Your task to perform on an android device: toggle show notifications on the lock screen Image 0: 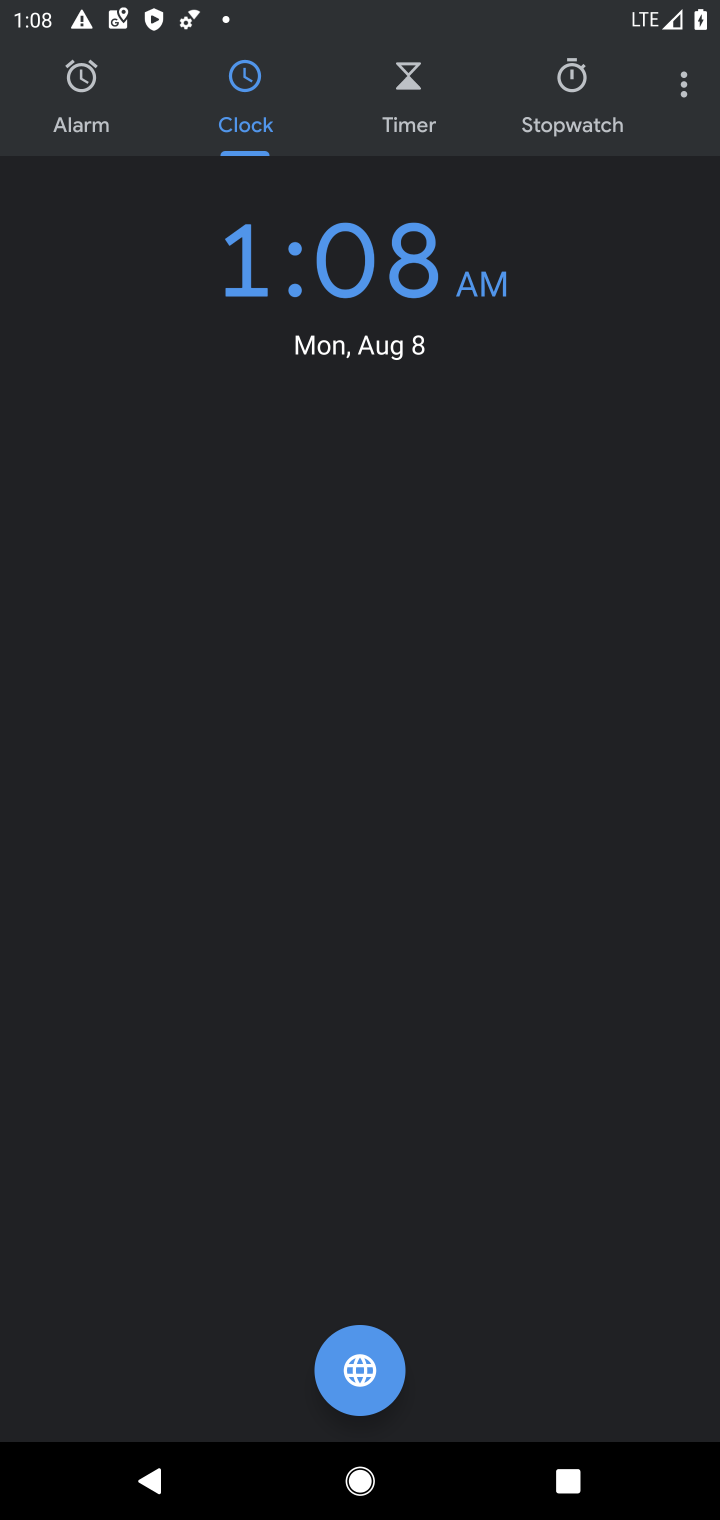
Step 0: press back button
Your task to perform on an android device: toggle show notifications on the lock screen Image 1: 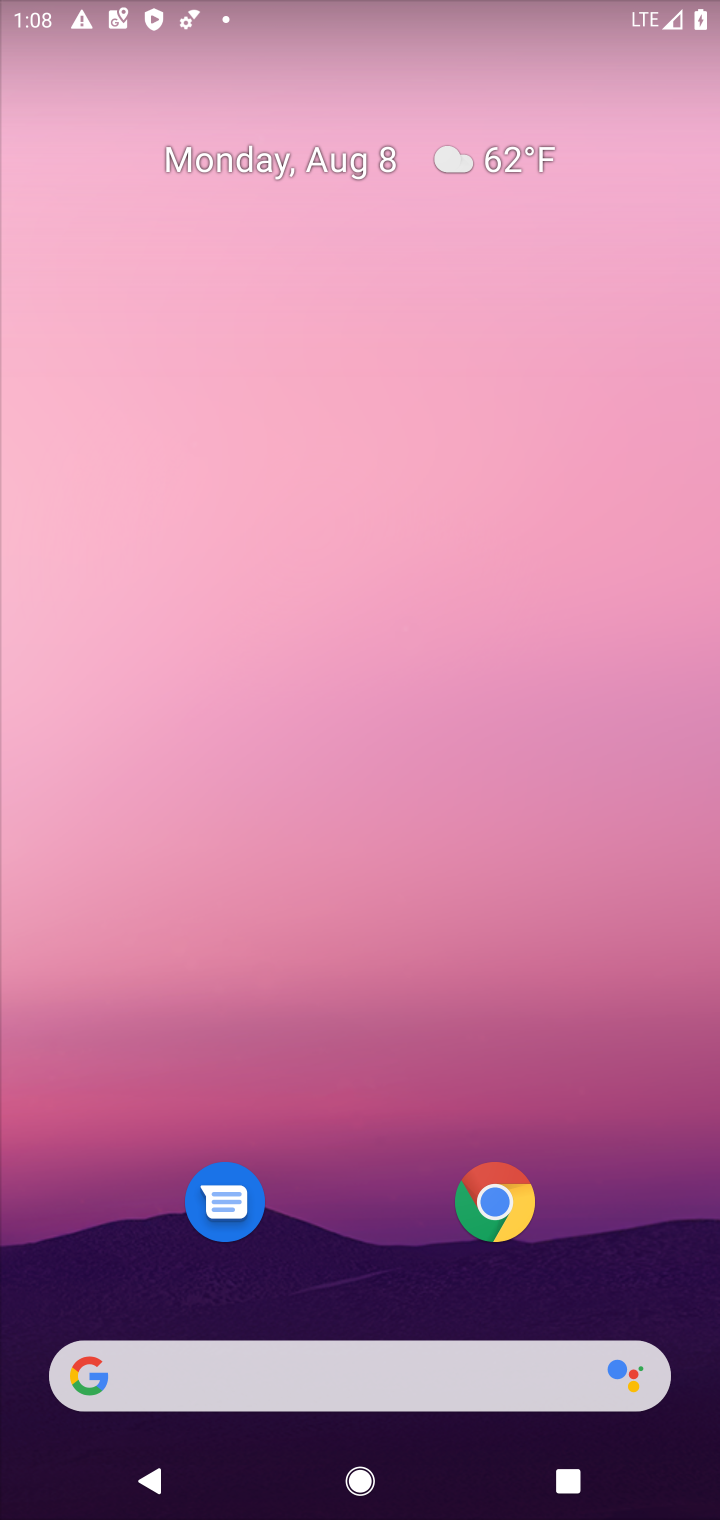
Step 1: drag from (363, 1183) to (406, 284)
Your task to perform on an android device: toggle show notifications on the lock screen Image 2: 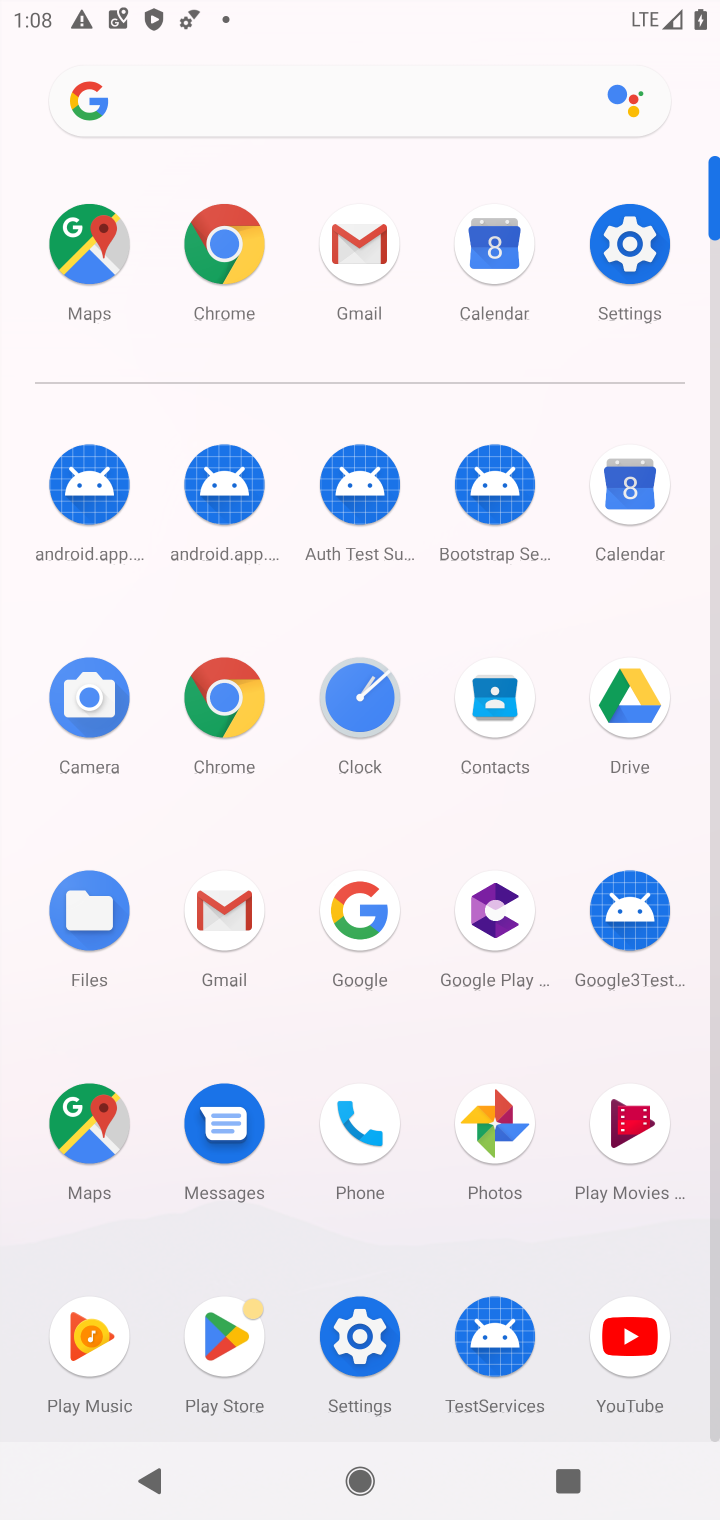
Step 2: click (621, 247)
Your task to perform on an android device: toggle show notifications on the lock screen Image 3: 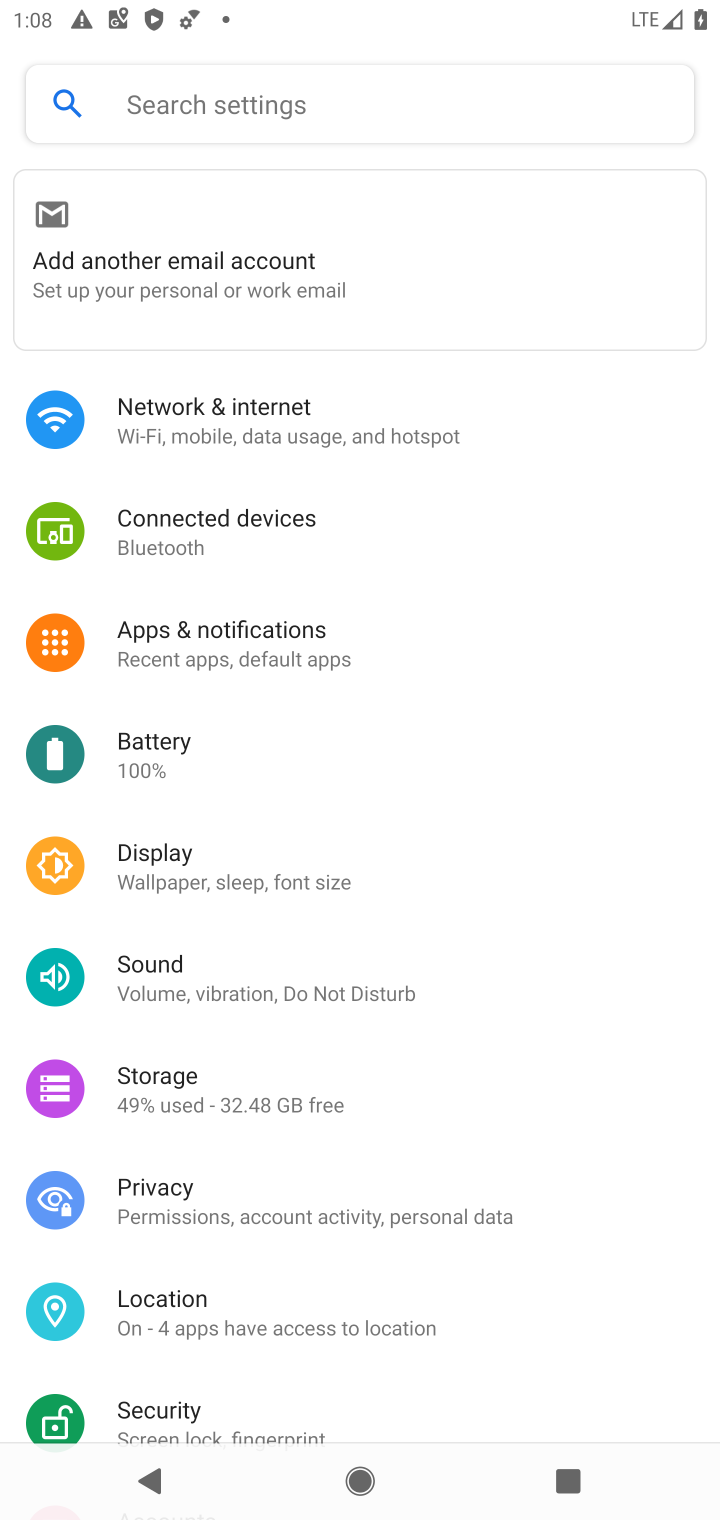
Step 3: click (284, 624)
Your task to perform on an android device: toggle show notifications on the lock screen Image 4: 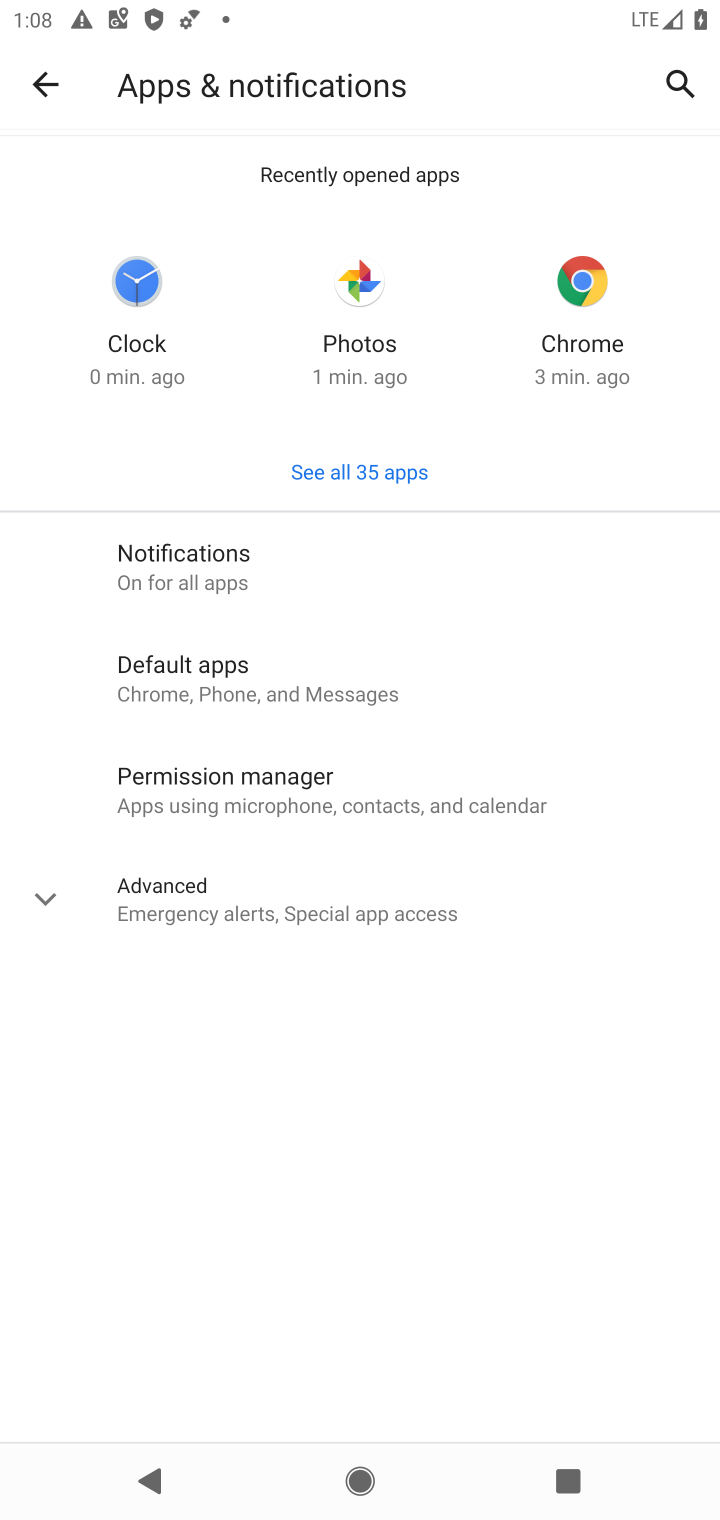
Step 4: click (203, 591)
Your task to perform on an android device: toggle show notifications on the lock screen Image 5: 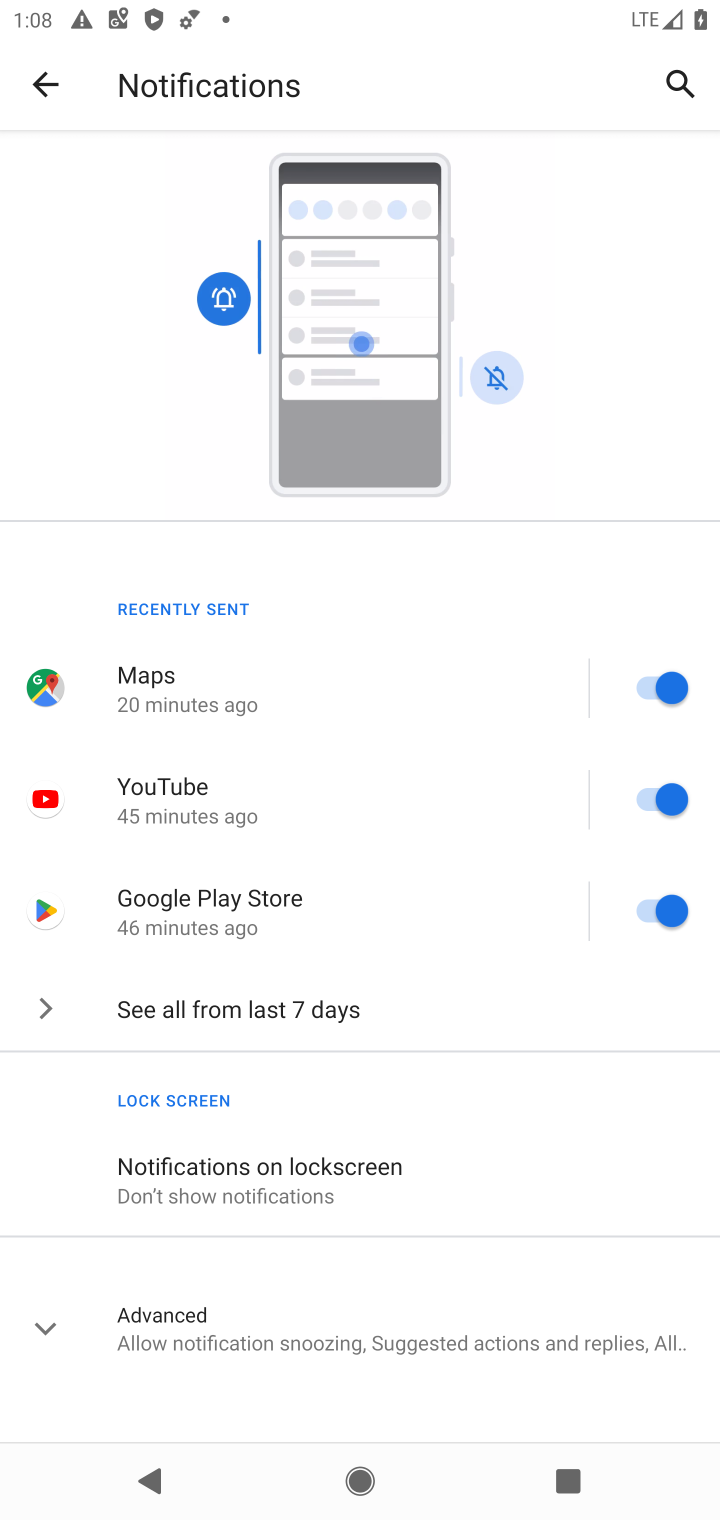
Step 5: click (344, 1182)
Your task to perform on an android device: toggle show notifications on the lock screen Image 6: 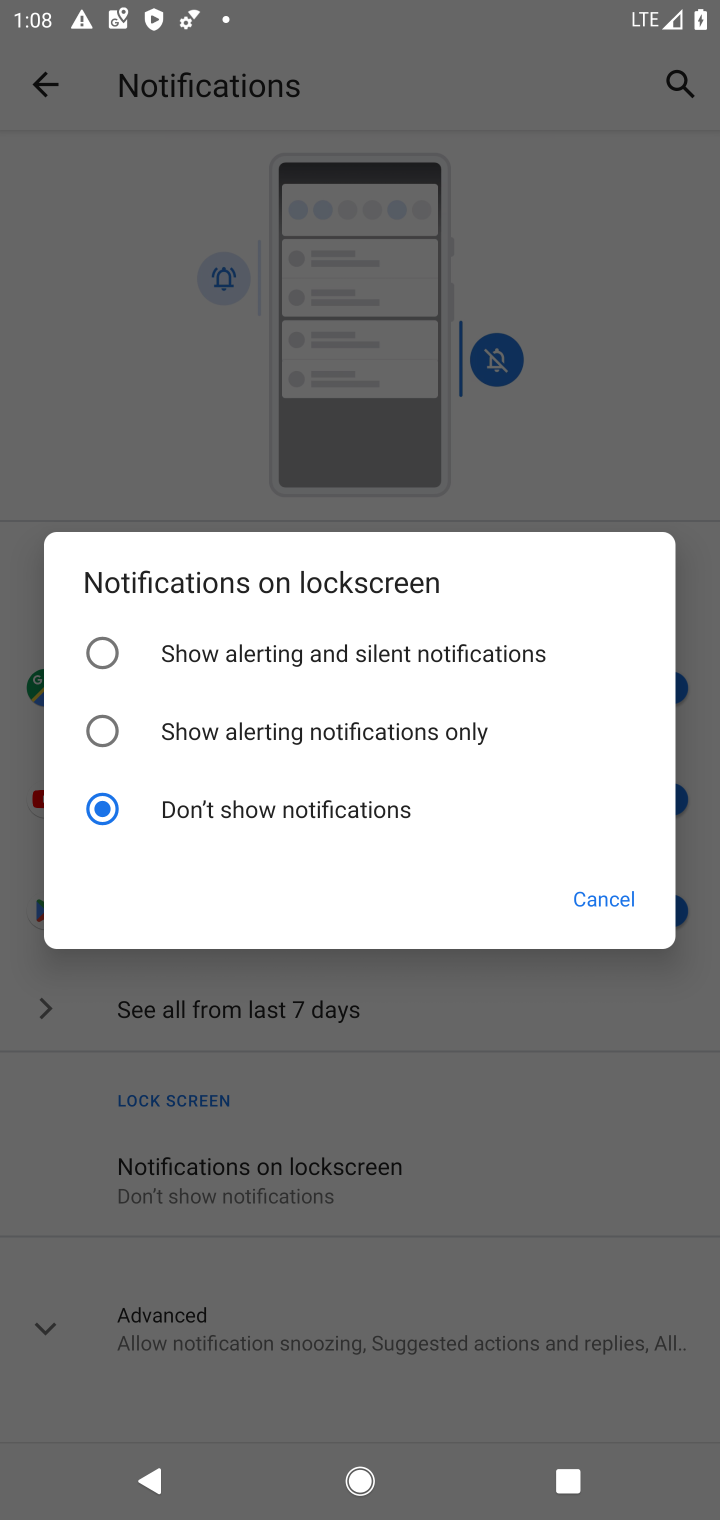
Step 6: click (104, 652)
Your task to perform on an android device: toggle show notifications on the lock screen Image 7: 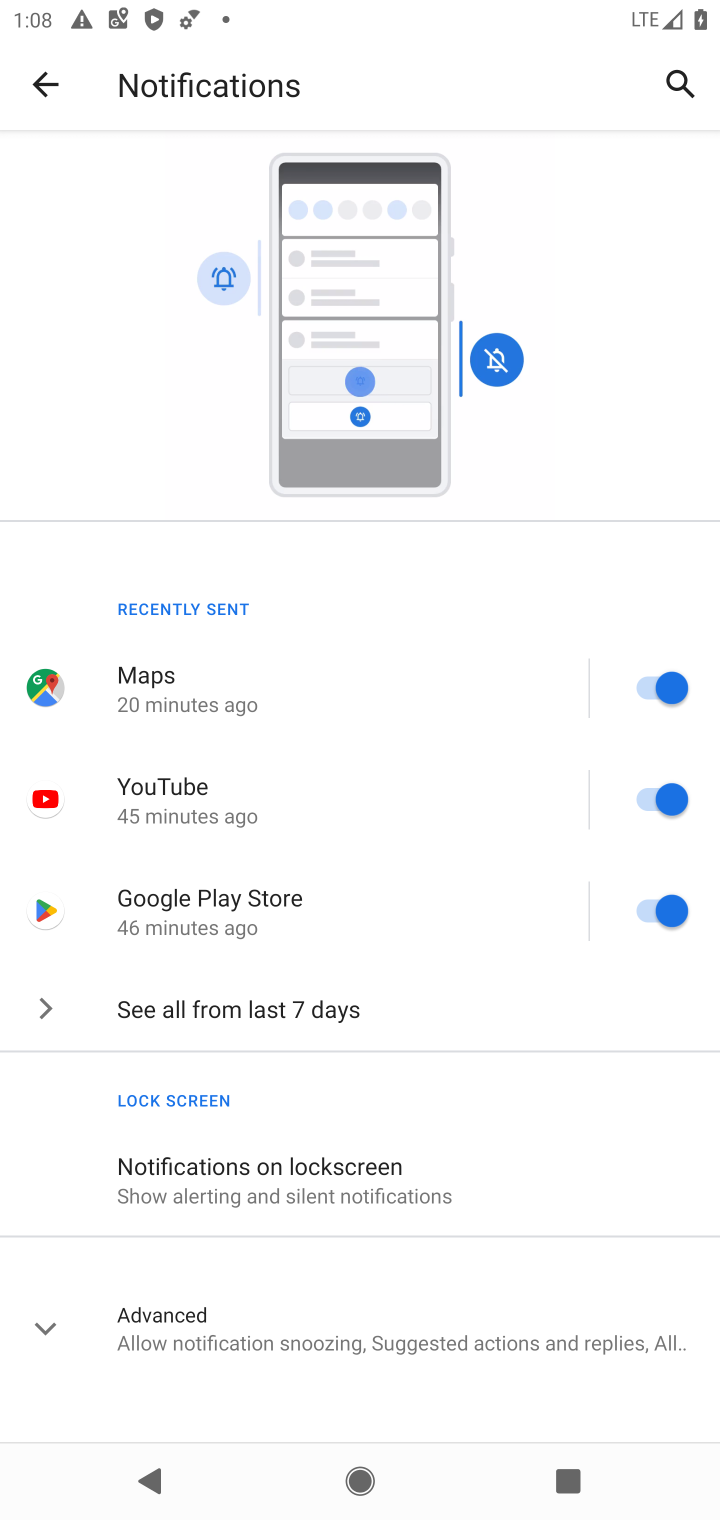
Step 7: task complete